Your task to perform on an android device: Search for Mexican restaurants on Maps Image 0: 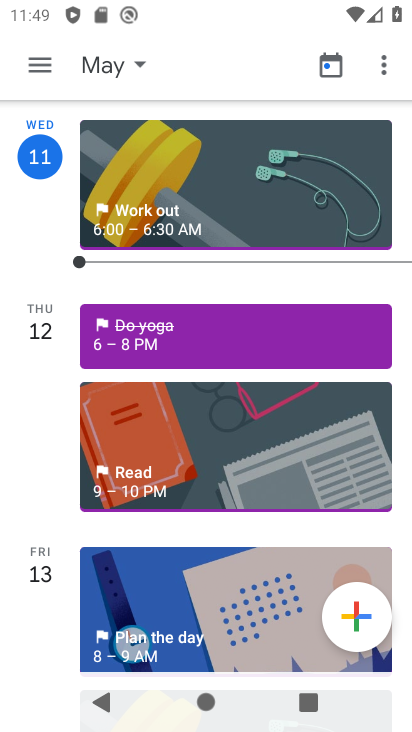
Step 0: press home button
Your task to perform on an android device: Search for Mexican restaurants on Maps Image 1: 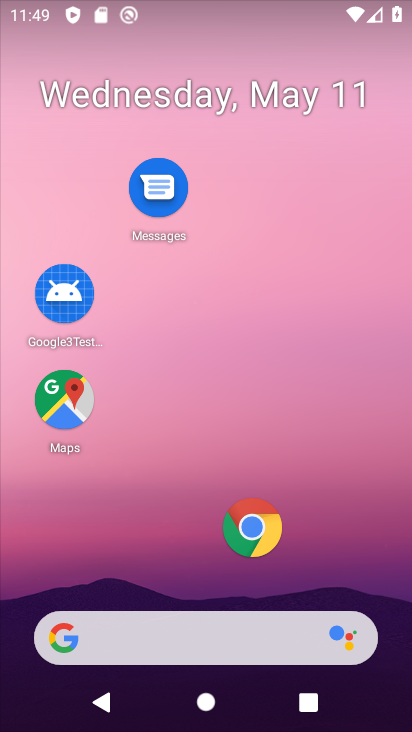
Step 1: click (63, 398)
Your task to perform on an android device: Search for Mexican restaurants on Maps Image 2: 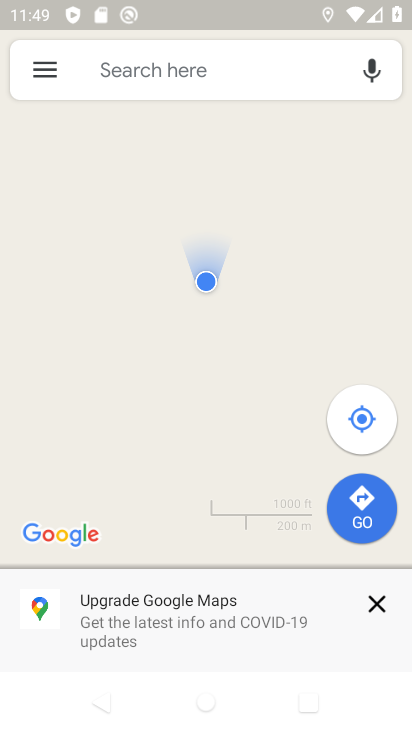
Step 2: click (200, 65)
Your task to perform on an android device: Search for Mexican restaurants on Maps Image 3: 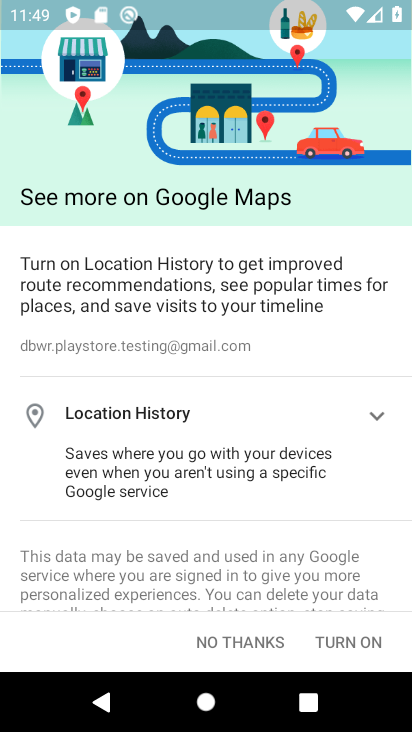
Step 3: click (347, 638)
Your task to perform on an android device: Search for Mexican restaurants on Maps Image 4: 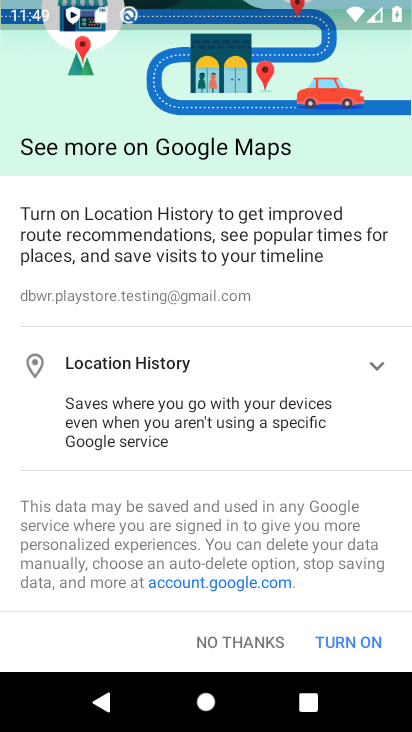
Step 4: click (347, 638)
Your task to perform on an android device: Search for Mexican restaurants on Maps Image 5: 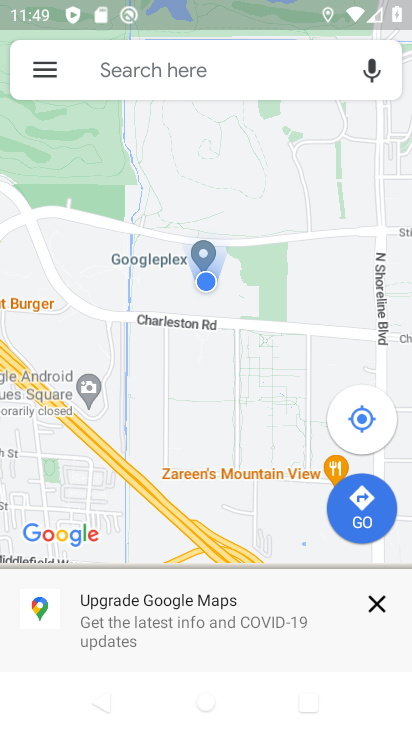
Step 5: click (239, 69)
Your task to perform on an android device: Search for Mexican restaurants on Maps Image 6: 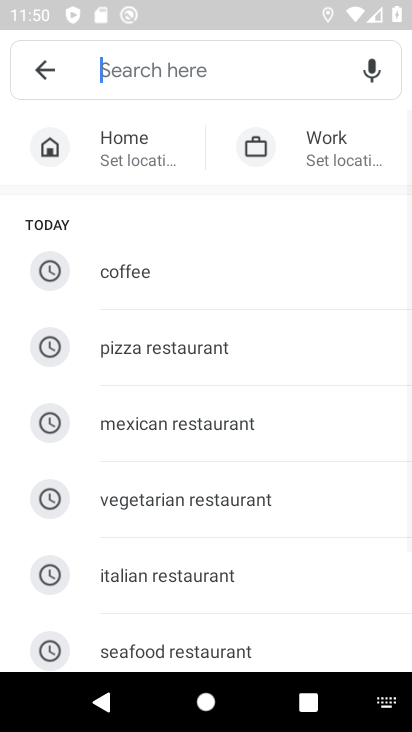
Step 6: click (162, 425)
Your task to perform on an android device: Search for Mexican restaurants on Maps Image 7: 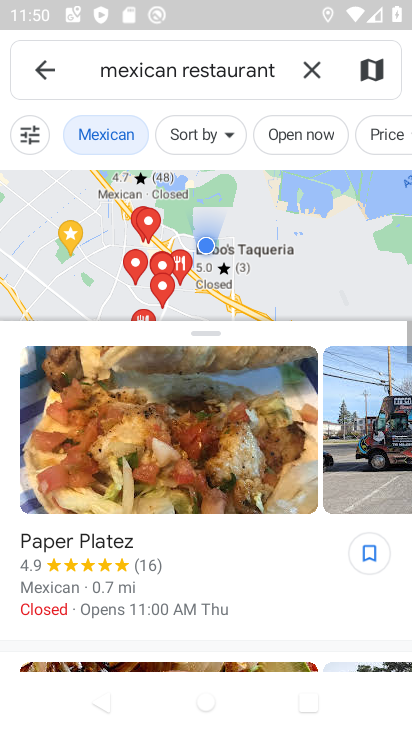
Step 7: task complete